Your task to perform on an android device: change notifications settings Image 0: 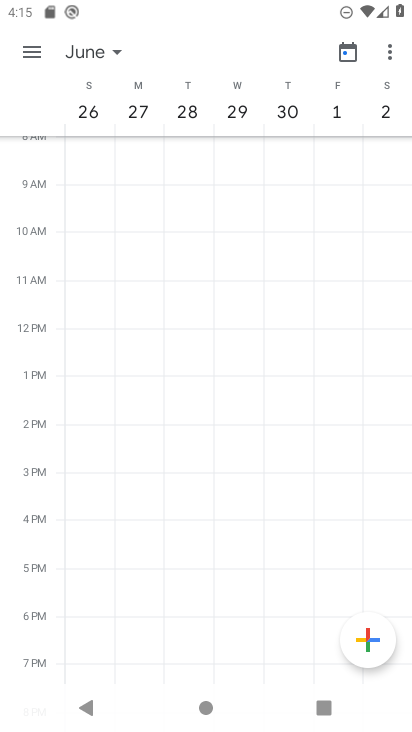
Step 0: press home button
Your task to perform on an android device: change notifications settings Image 1: 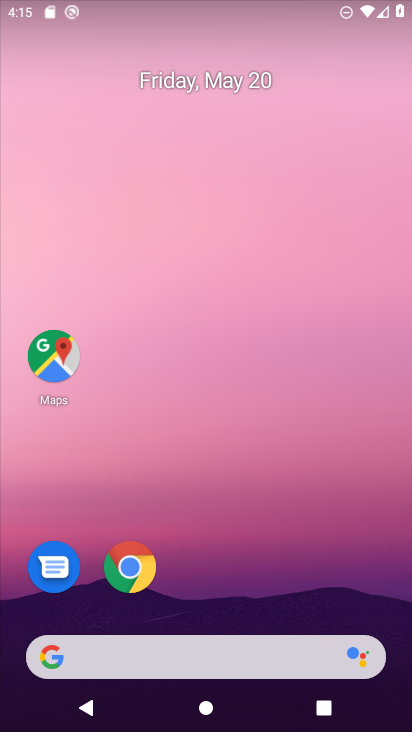
Step 1: drag from (250, 728) to (249, 164)
Your task to perform on an android device: change notifications settings Image 2: 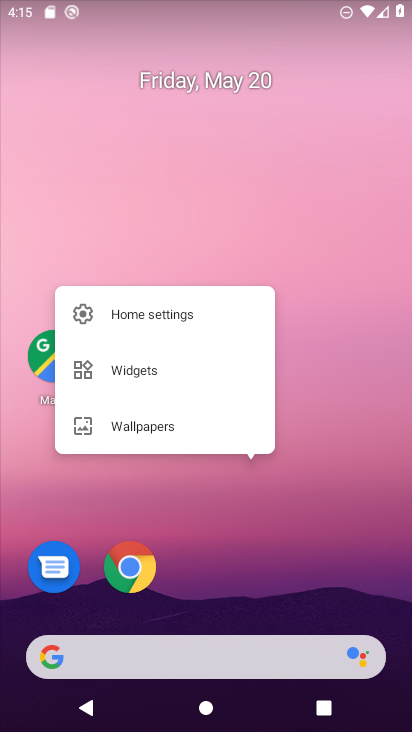
Step 2: click (246, 202)
Your task to perform on an android device: change notifications settings Image 3: 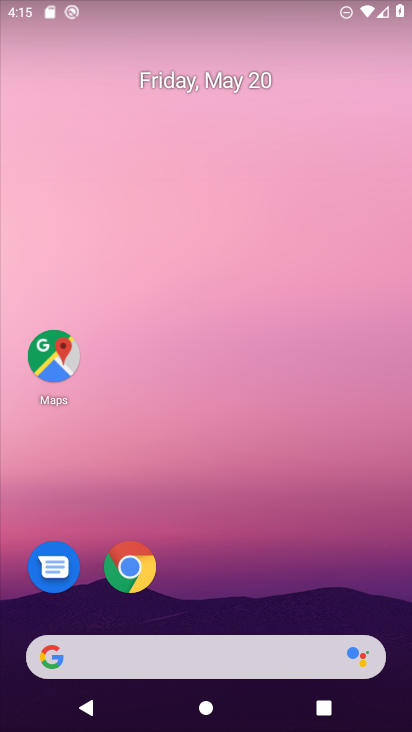
Step 3: drag from (236, 709) to (238, 190)
Your task to perform on an android device: change notifications settings Image 4: 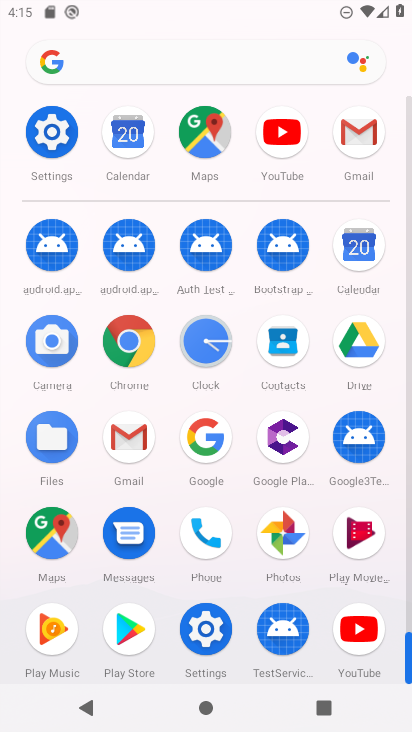
Step 4: click (60, 133)
Your task to perform on an android device: change notifications settings Image 5: 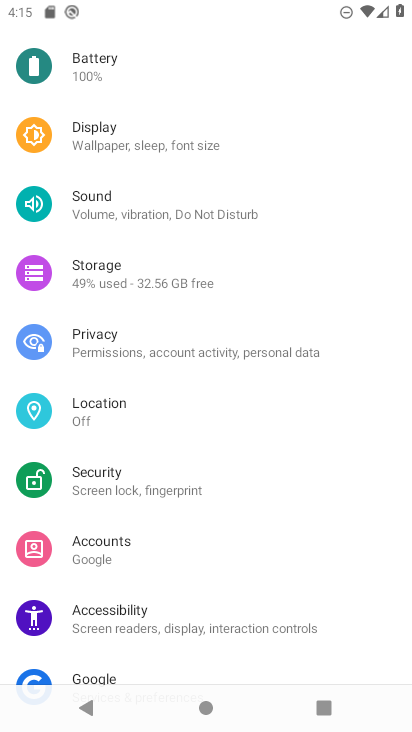
Step 5: drag from (246, 186) to (236, 562)
Your task to perform on an android device: change notifications settings Image 6: 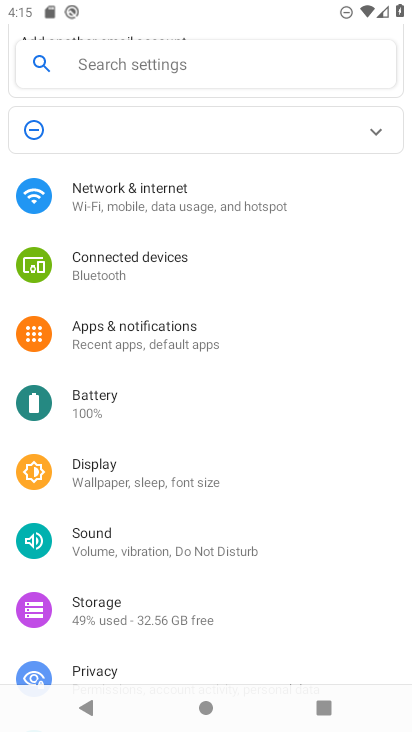
Step 6: click (156, 334)
Your task to perform on an android device: change notifications settings Image 7: 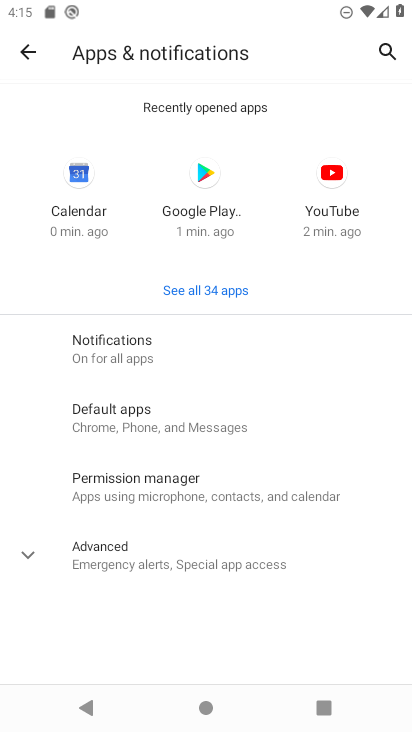
Step 7: click (121, 346)
Your task to perform on an android device: change notifications settings Image 8: 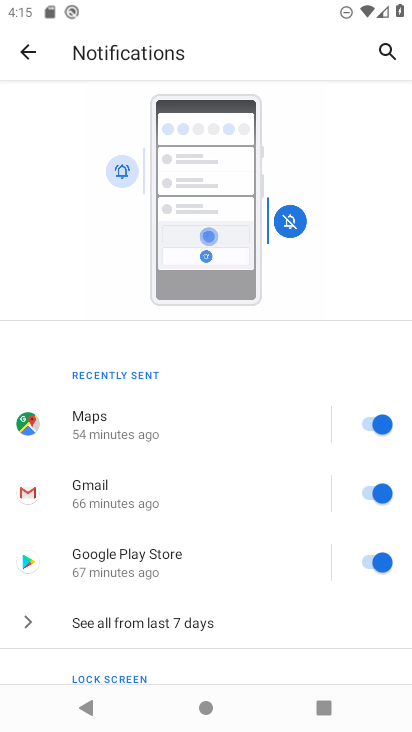
Step 8: drag from (178, 649) to (215, 181)
Your task to perform on an android device: change notifications settings Image 9: 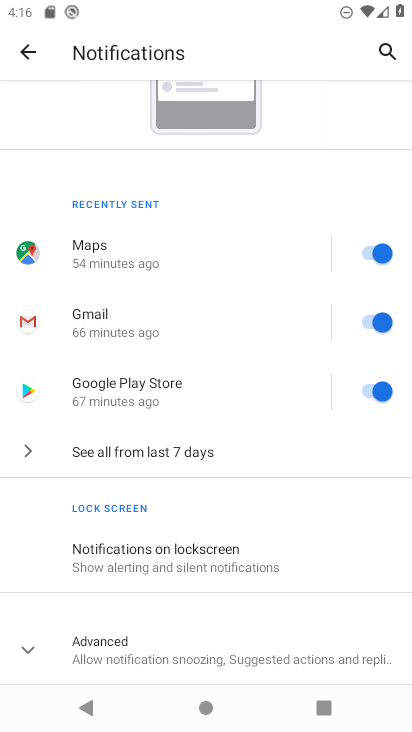
Step 9: click (108, 643)
Your task to perform on an android device: change notifications settings Image 10: 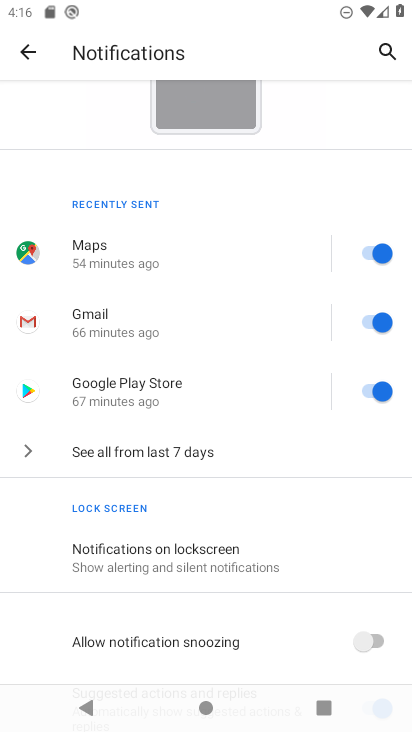
Step 10: click (377, 640)
Your task to perform on an android device: change notifications settings Image 11: 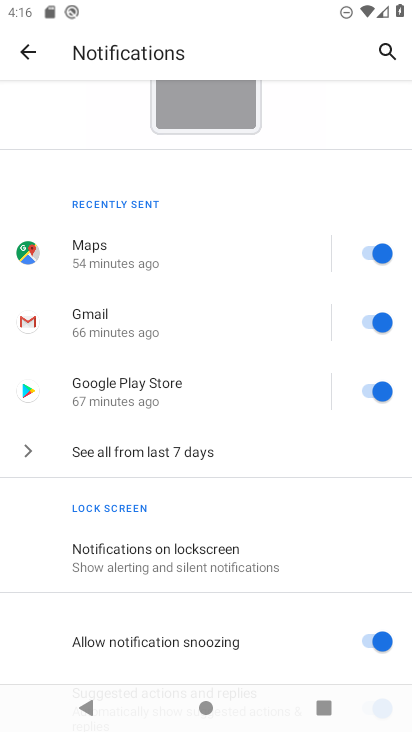
Step 11: task complete